Your task to perform on an android device: set the timer Image 0: 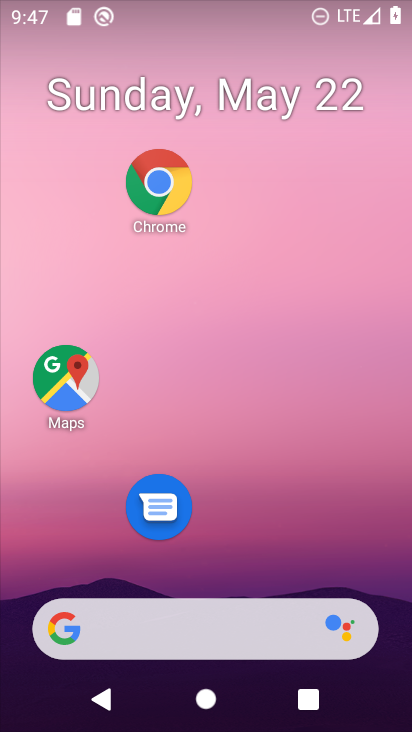
Step 0: drag from (254, 695) to (219, 1)
Your task to perform on an android device: set the timer Image 1: 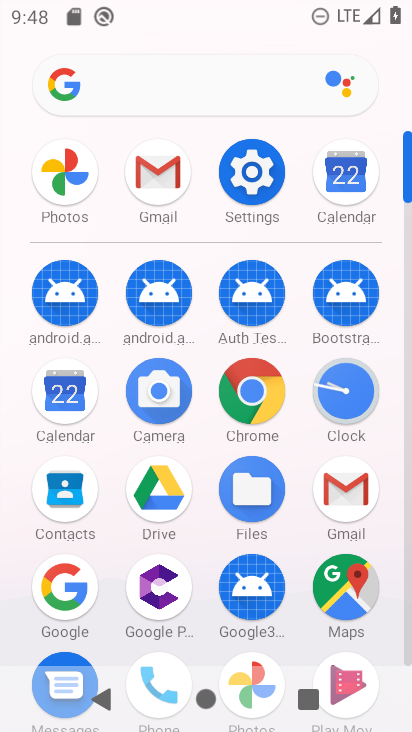
Step 1: click (330, 413)
Your task to perform on an android device: set the timer Image 2: 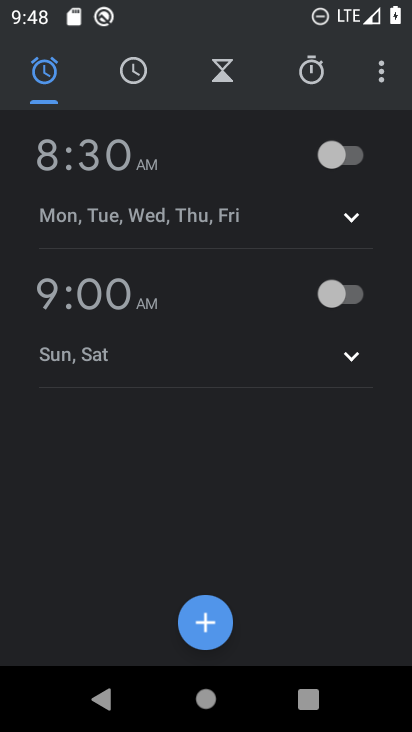
Step 2: click (223, 76)
Your task to perform on an android device: set the timer Image 3: 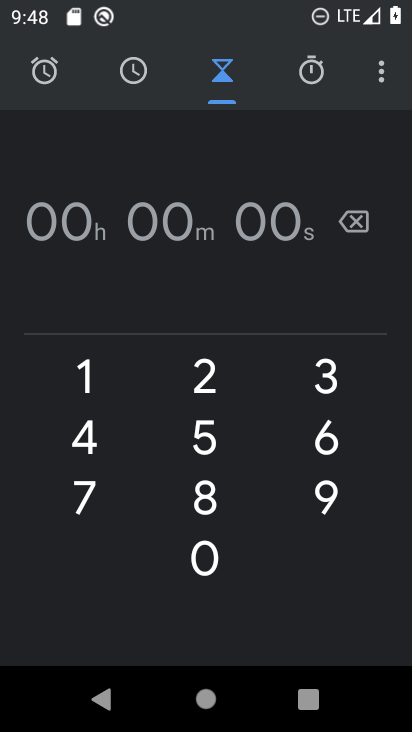
Step 3: click (208, 392)
Your task to perform on an android device: set the timer Image 4: 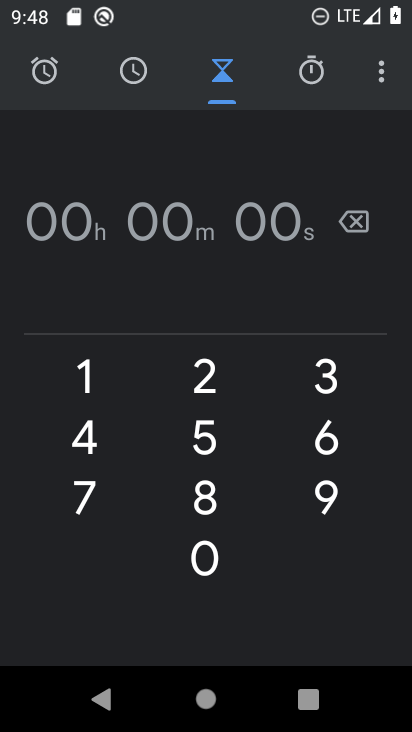
Step 4: click (203, 457)
Your task to perform on an android device: set the timer Image 5: 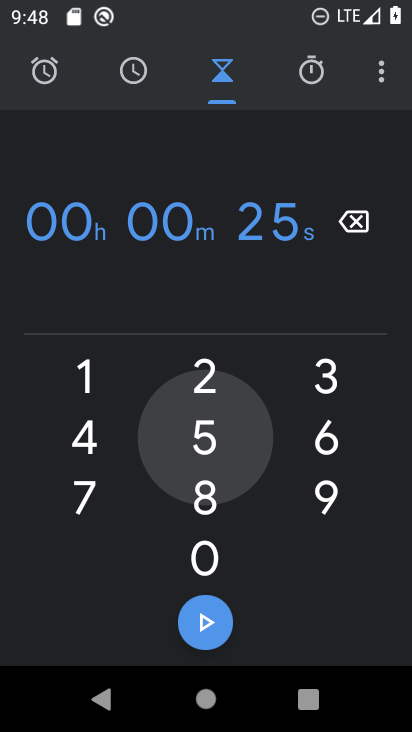
Step 5: click (319, 439)
Your task to perform on an android device: set the timer Image 6: 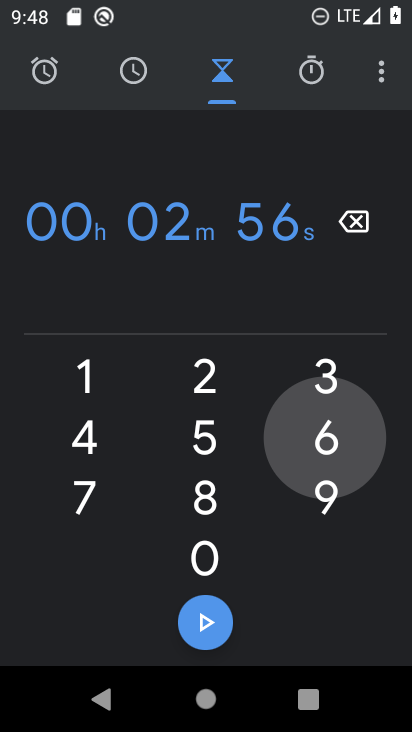
Step 6: click (320, 388)
Your task to perform on an android device: set the timer Image 7: 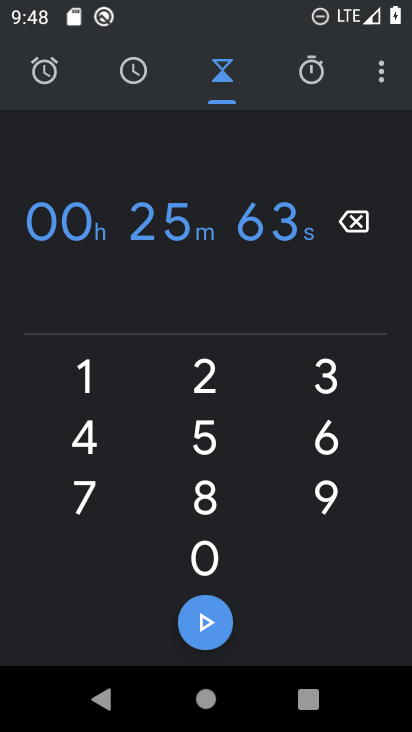
Step 7: task complete